Your task to perform on an android device: clear history in the chrome app Image 0: 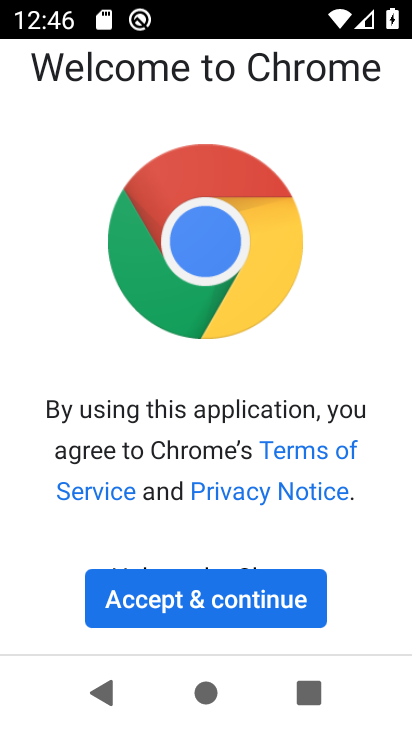
Step 0: press home button
Your task to perform on an android device: clear history in the chrome app Image 1: 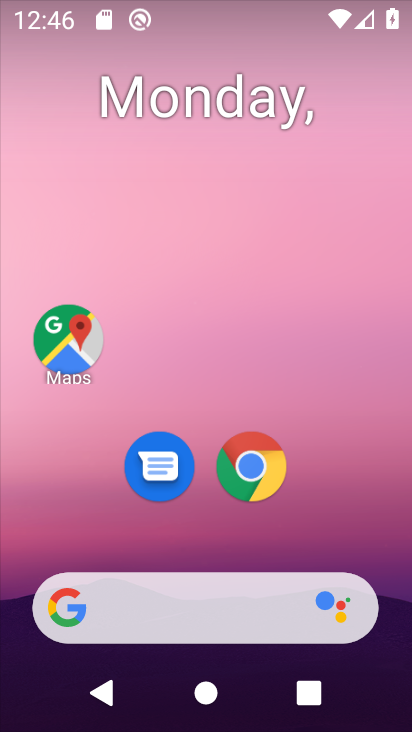
Step 1: click (254, 460)
Your task to perform on an android device: clear history in the chrome app Image 2: 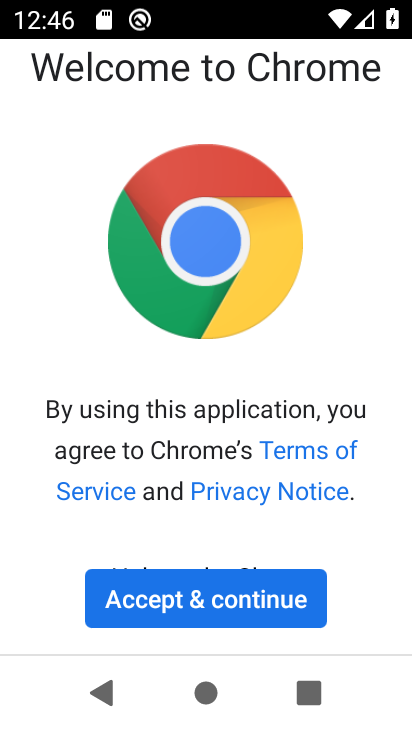
Step 2: click (246, 613)
Your task to perform on an android device: clear history in the chrome app Image 3: 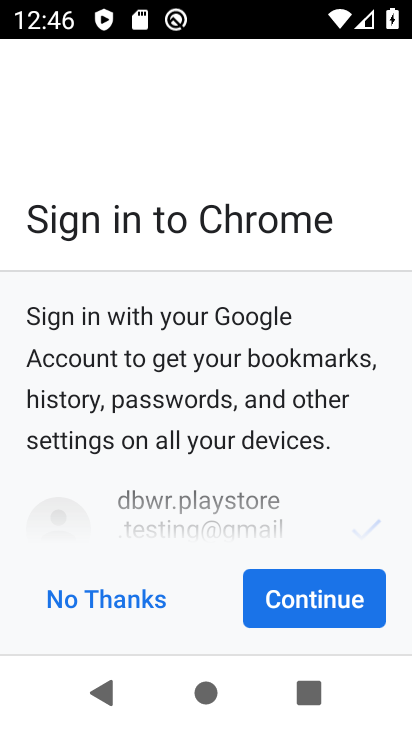
Step 3: click (334, 603)
Your task to perform on an android device: clear history in the chrome app Image 4: 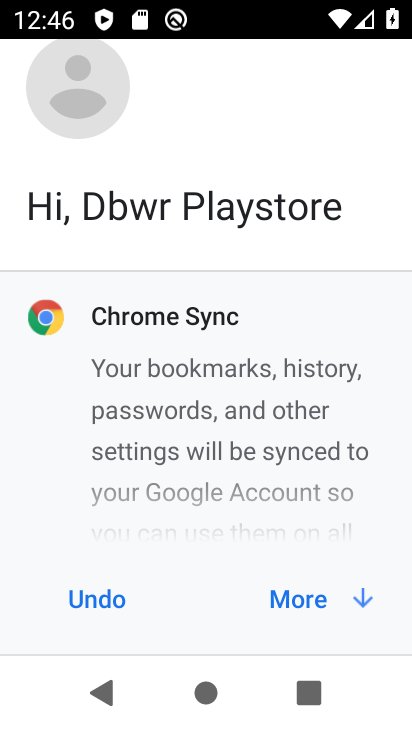
Step 4: click (334, 603)
Your task to perform on an android device: clear history in the chrome app Image 5: 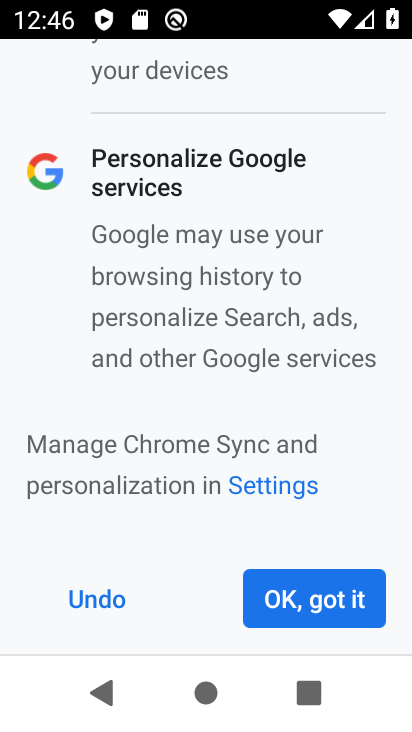
Step 5: click (334, 601)
Your task to perform on an android device: clear history in the chrome app Image 6: 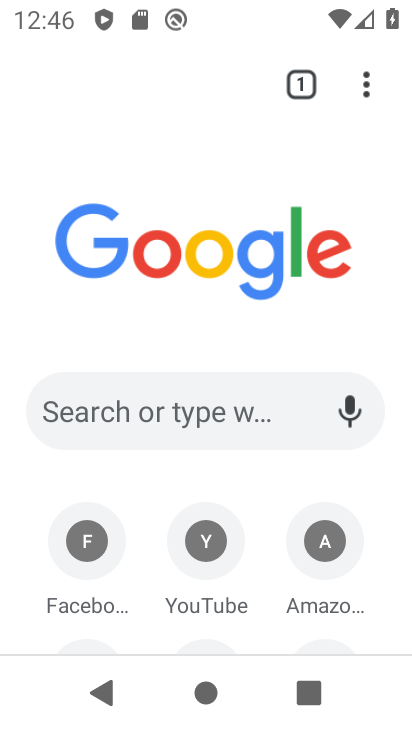
Step 6: click (365, 87)
Your task to perform on an android device: clear history in the chrome app Image 7: 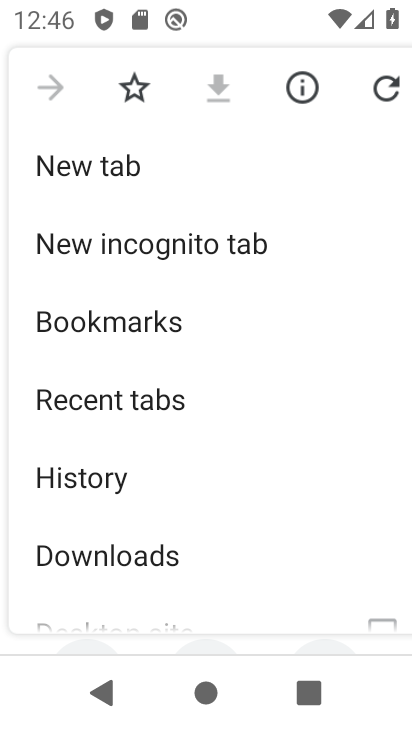
Step 7: click (105, 480)
Your task to perform on an android device: clear history in the chrome app Image 8: 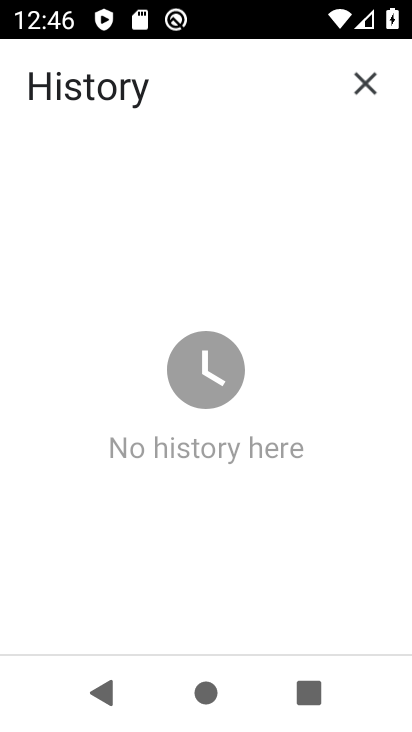
Step 8: task complete